Your task to perform on an android device: Open Chrome and go to settings Image 0: 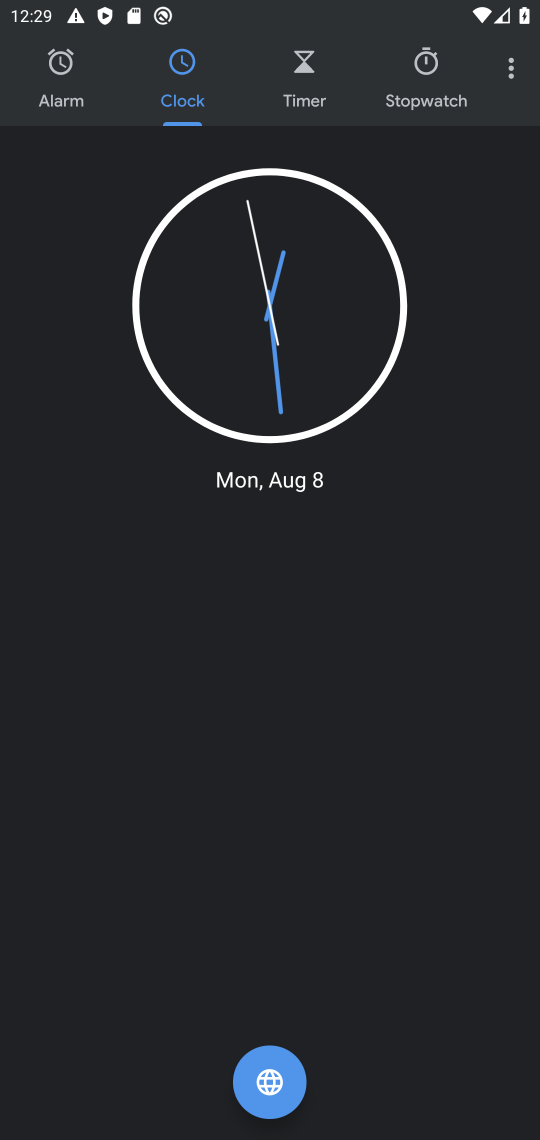
Step 0: press home button
Your task to perform on an android device: Open Chrome and go to settings Image 1: 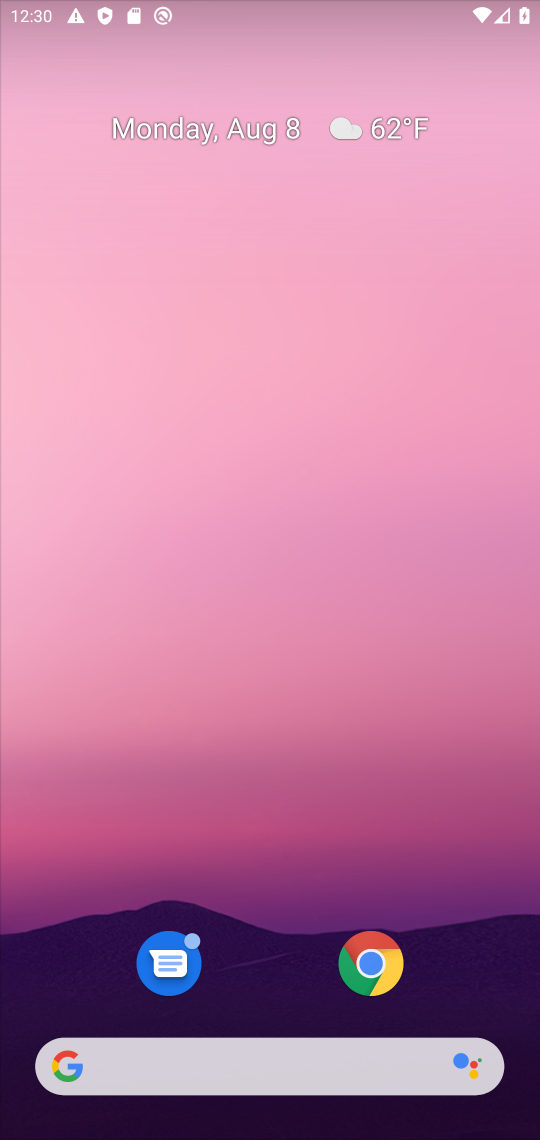
Step 1: drag from (481, 992) to (178, 70)
Your task to perform on an android device: Open Chrome and go to settings Image 2: 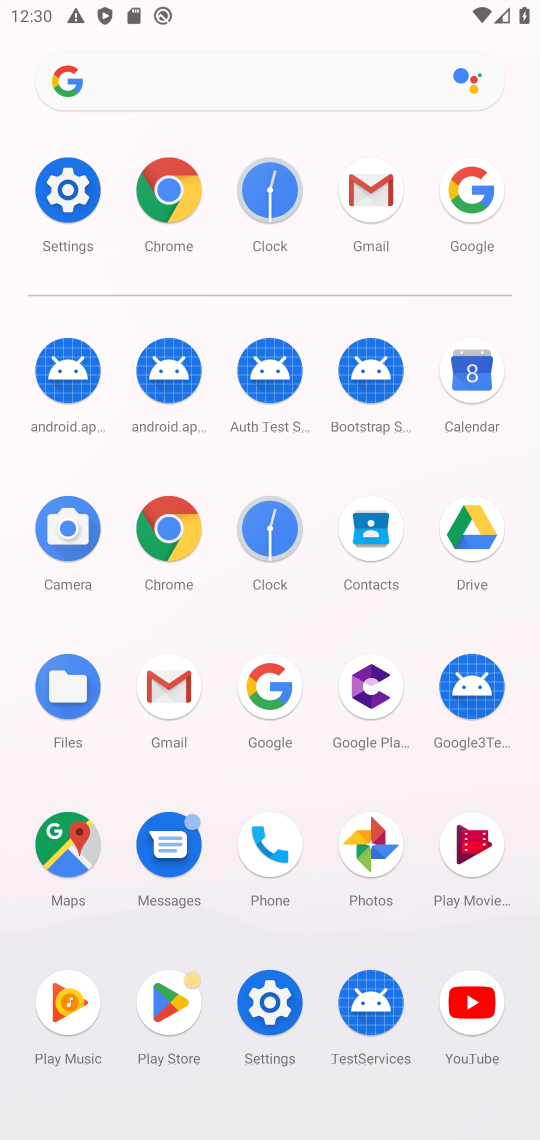
Step 2: click (161, 542)
Your task to perform on an android device: Open Chrome and go to settings Image 3: 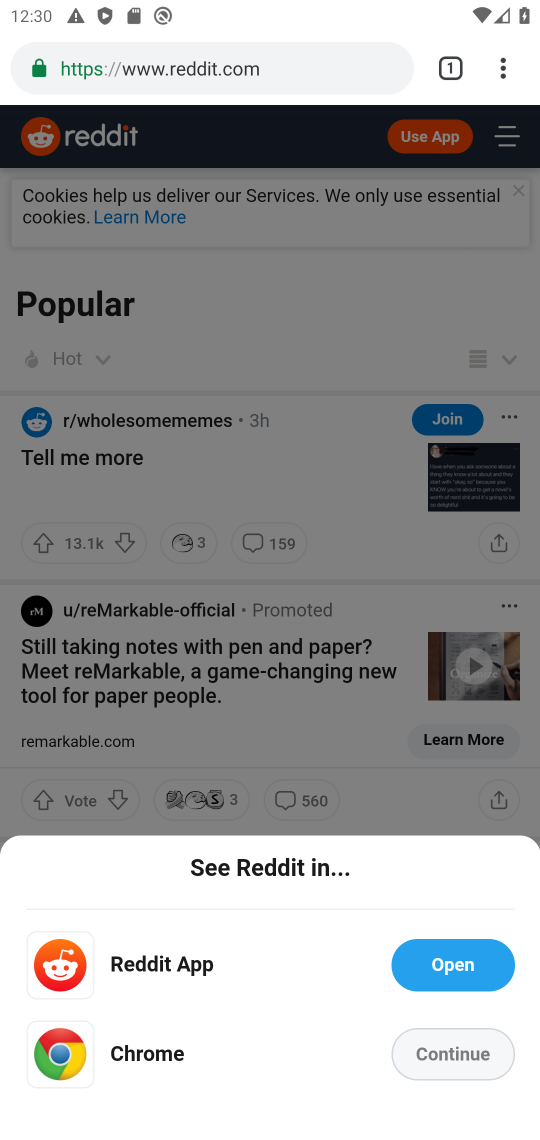
Step 3: press back button
Your task to perform on an android device: Open Chrome and go to settings Image 4: 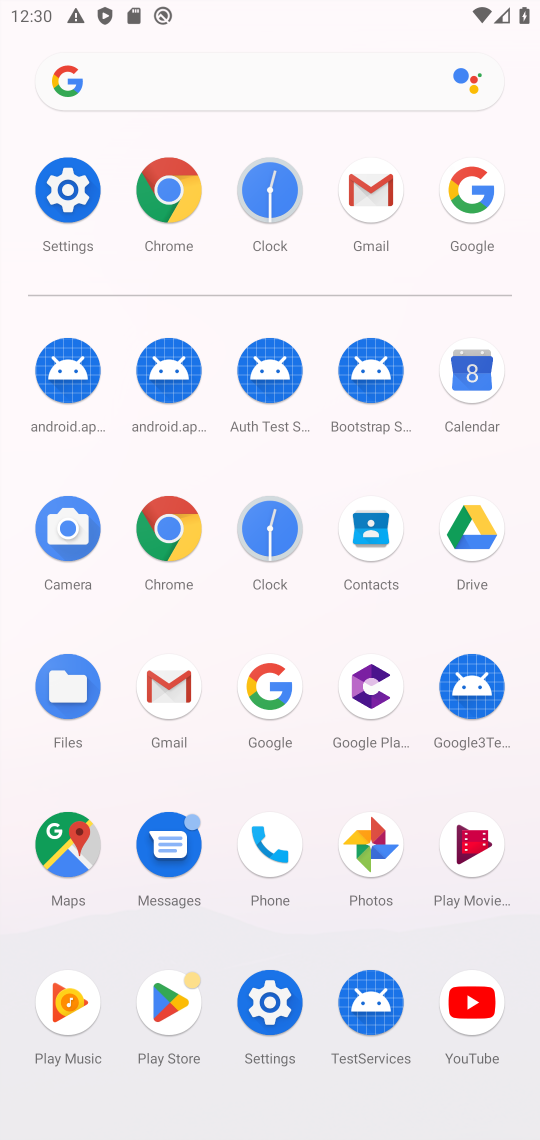
Step 4: click (162, 544)
Your task to perform on an android device: Open Chrome and go to settings Image 5: 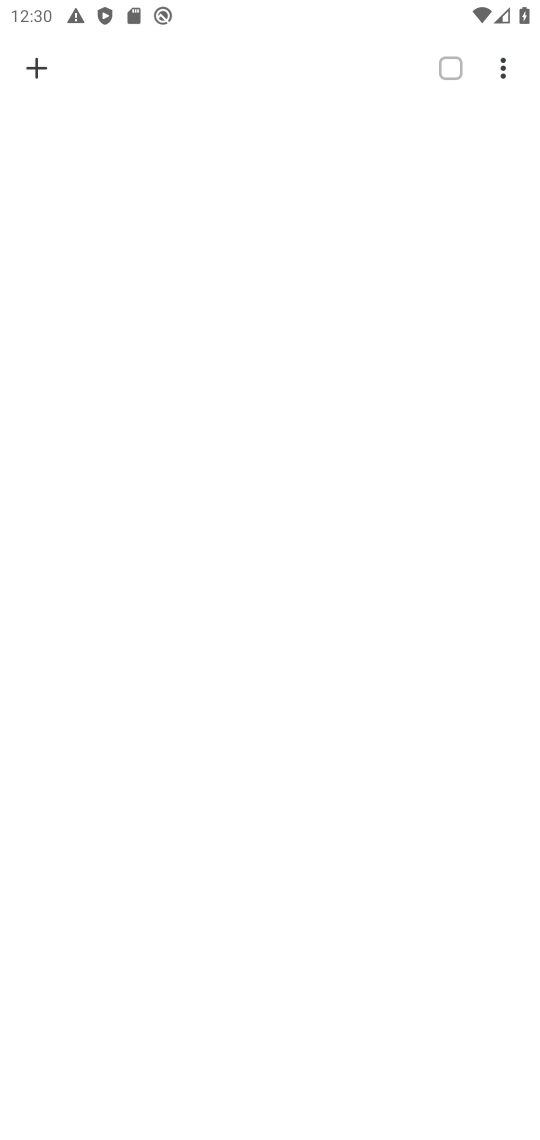
Step 5: click (502, 70)
Your task to perform on an android device: Open Chrome and go to settings Image 6: 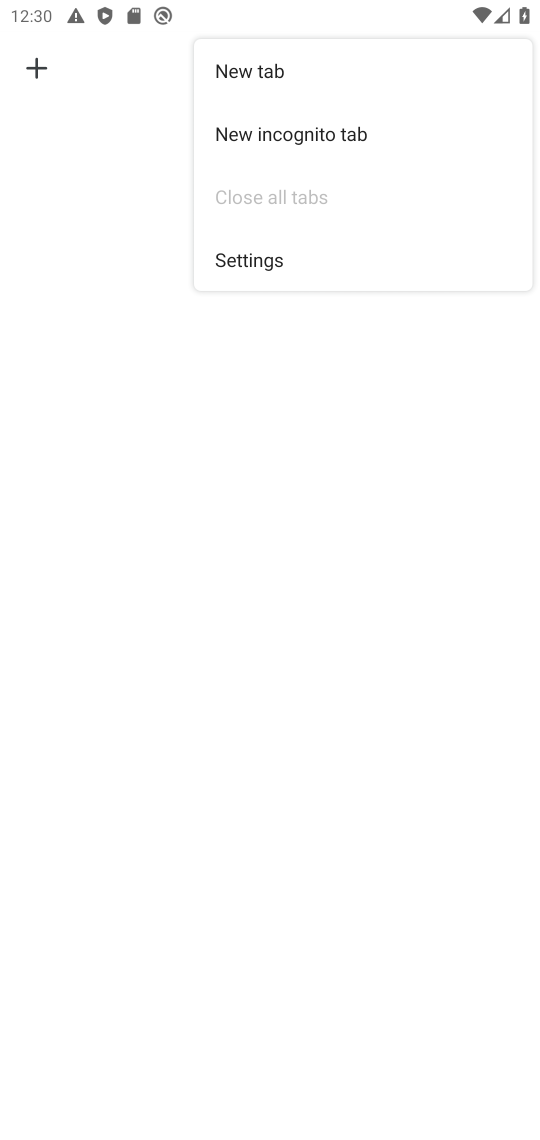
Step 6: click (242, 246)
Your task to perform on an android device: Open Chrome and go to settings Image 7: 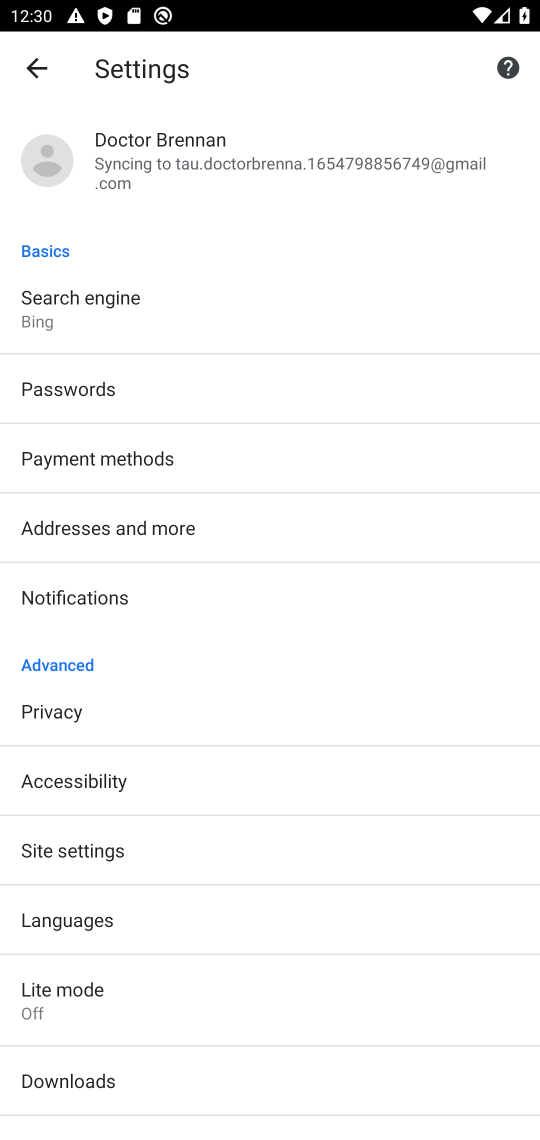
Step 7: task complete